Your task to perform on an android device: open wifi settings Image 0: 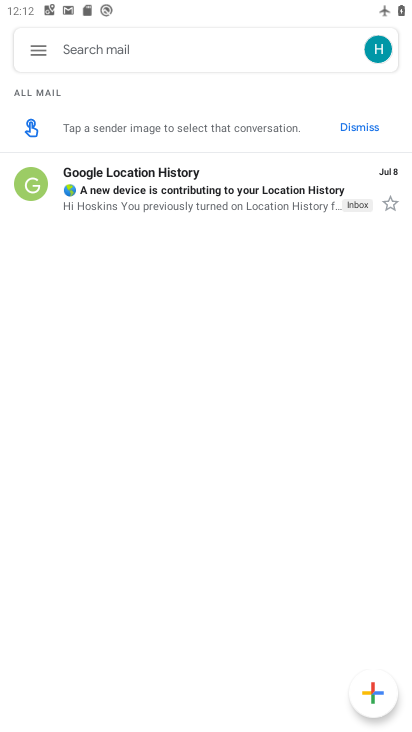
Step 0: press home button
Your task to perform on an android device: open wifi settings Image 1: 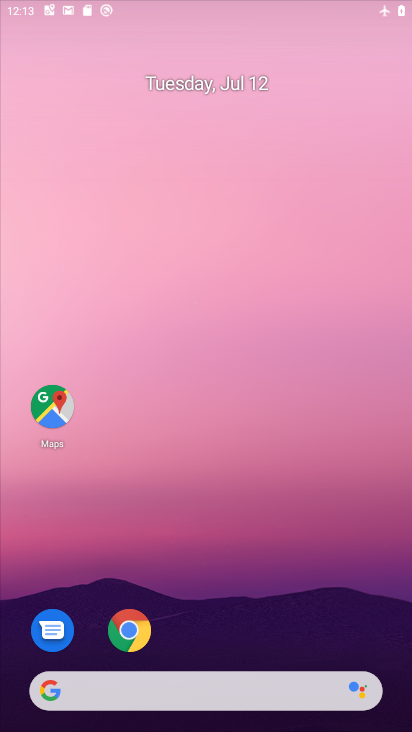
Step 1: drag from (221, 677) to (265, 174)
Your task to perform on an android device: open wifi settings Image 2: 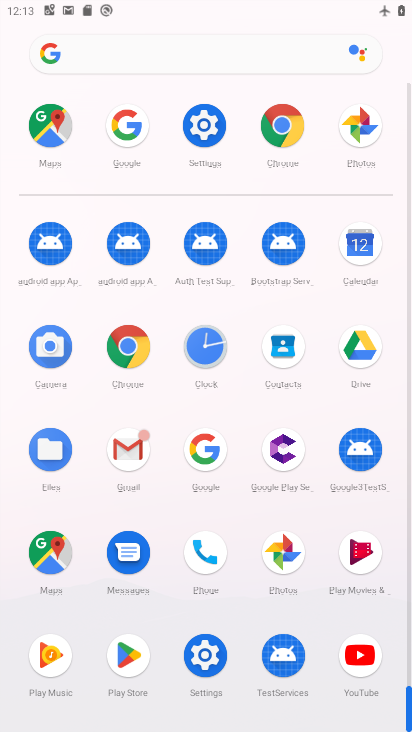
Step 2: click (206, 136)
Your task to perform on an android device: open wifi settings Image 3: 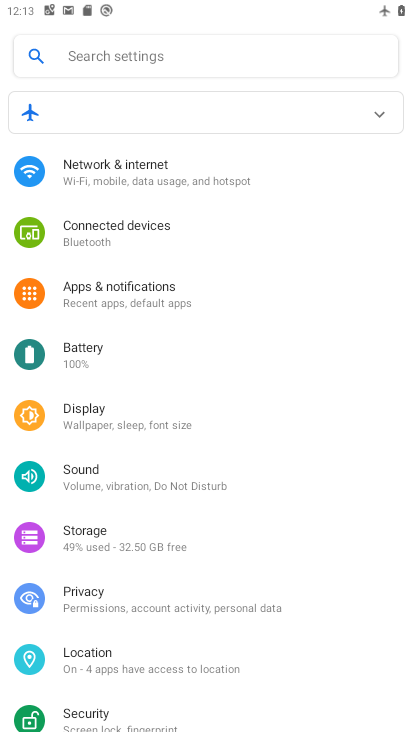
Step 3: click (235, 177)
Your task to perform on an android device: open wifi settings Image 4: 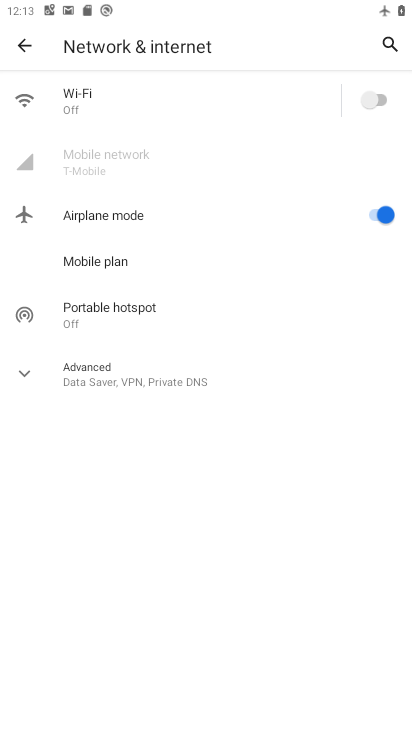
Step 4: click (162, 110)
Your task to perform on an android device: open wifi settings Image 5: 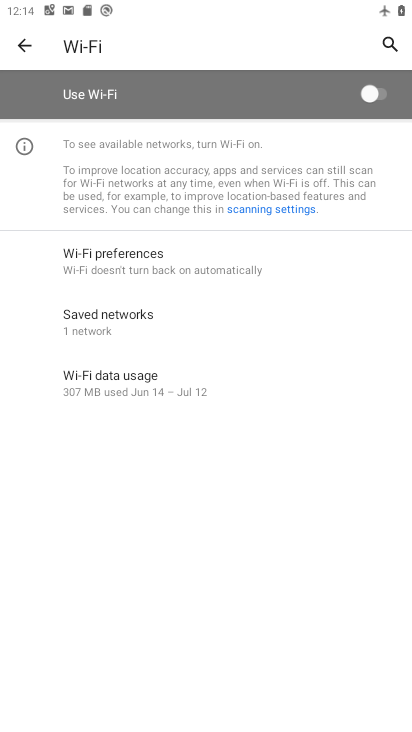
Step 5: task complete